Your task to perform on an android device: make emails show in primary in the gmail app Image 0: 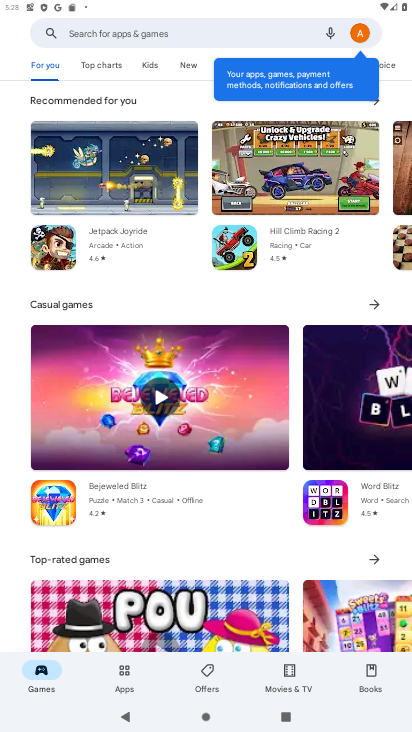
Step 0: press home button
Your task to perform on an android device: make emails show in primary in the gmail app Image 1: 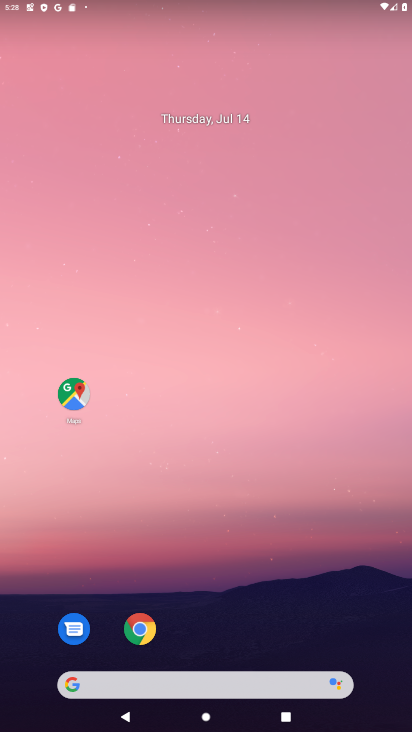
Step 1: drag from (316, 679) to (331, 1)
Your task to perform on an android device: make emails show in primary in the gmail app Image 2: 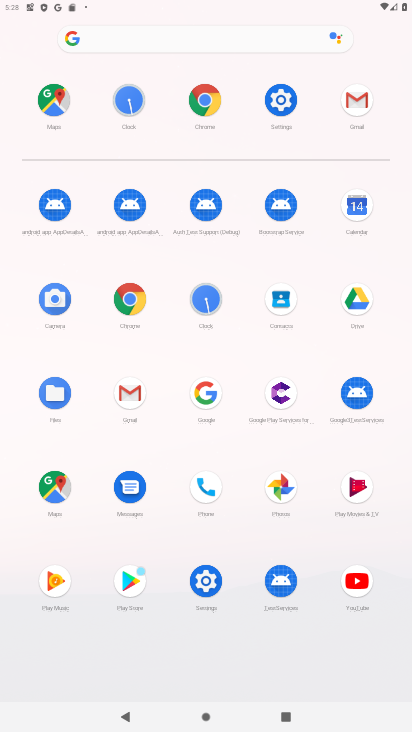
Step 2: click (118, 394)
Your task to perform on an android device: make emails show in primary in the gmail app Image 3: 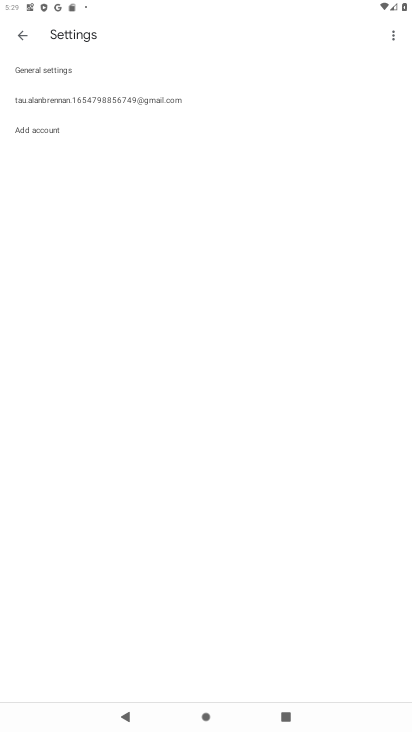
Step 3: click (85, 102)
Your task to perform on an android device: make emails show in primary in the gmail app Image 4: 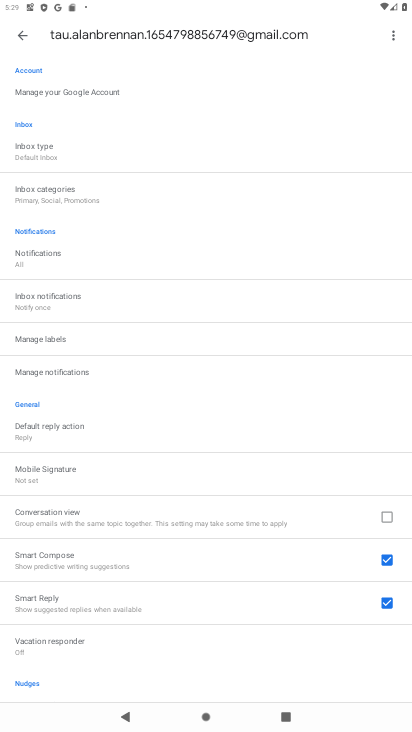
Step 4: click (68, 160)
Your task to perform on an android device: make emails show in primary in the gmail app Image 5: 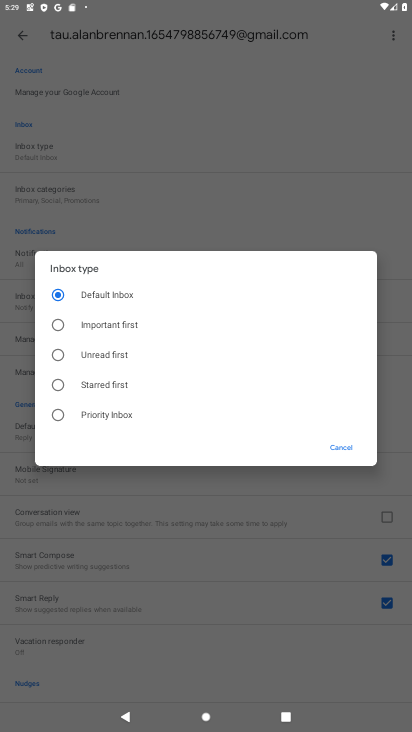
Step 5: press back button
Your task to perform on an android device: make emails show in primary in the gmail app Image 6: 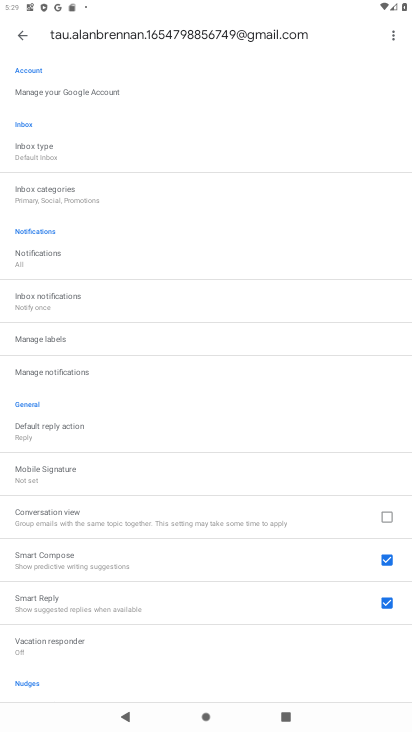
Step 6: press back button
Your task to perform on an android device: make emails show in primary in the gmail app Image 7: 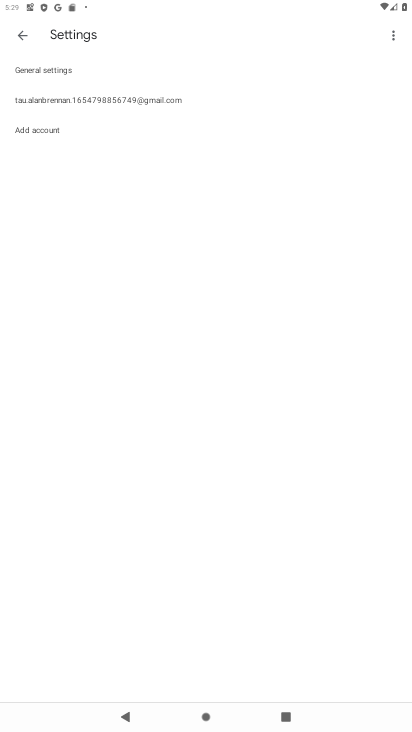
Step 7: press back button
Your task to perform on an android device: make emails show in primary in the gmail app Image 8: 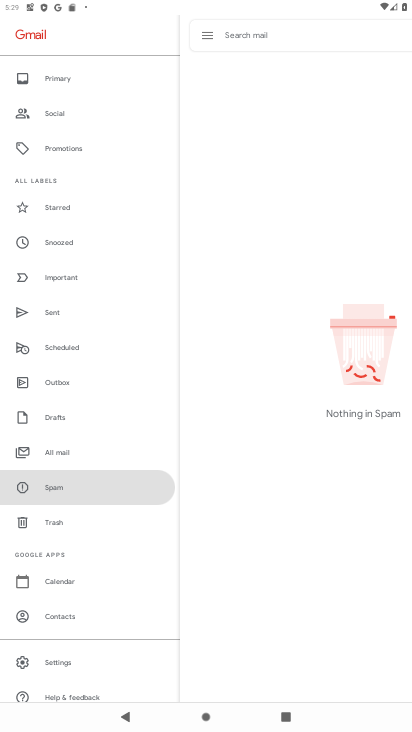
Step 8: click (49, 74)
Your task to perform on an android device: make emails show in primary in the gmail app Image 9: 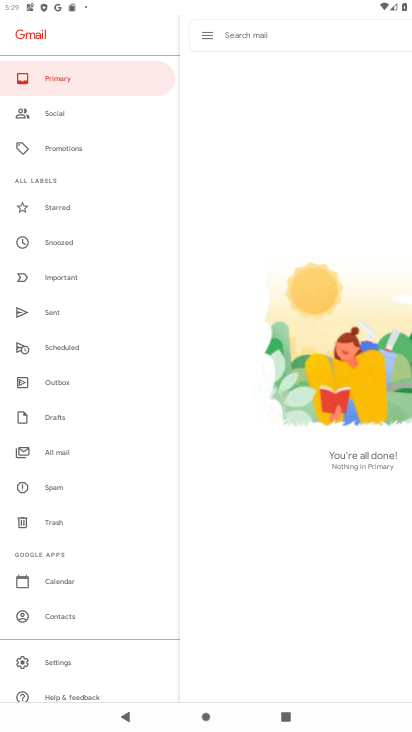
Step 9: task complete